Your task to perform on an android device: Go to ESPN.com Image 0: 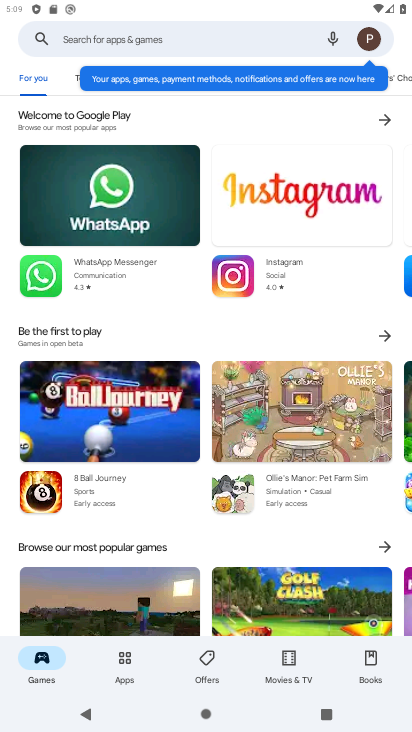
Step 0: press home button
Your task to perform on an android device: Go to ESPN.com Image 1: 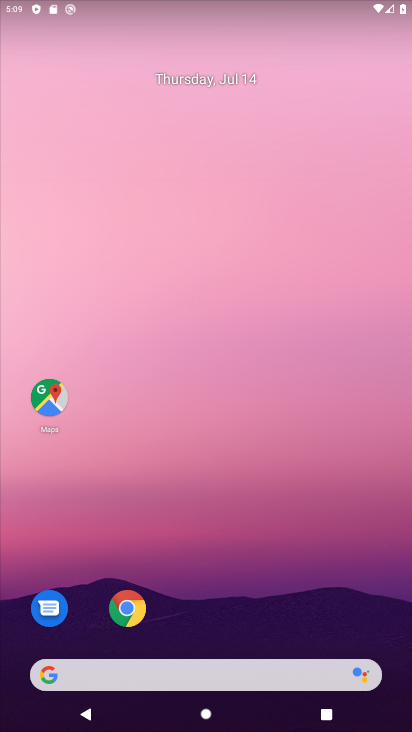
Step 1: click (129, 608)
Your task to perform on an android device: Go to ESPN.com Image 2: 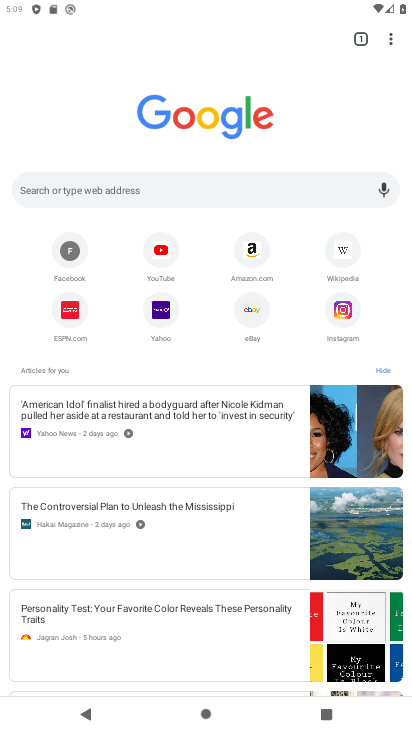
Step 2: click (70, 313)
Your task to perform on an android device: Go to ESPN.com Image 3: 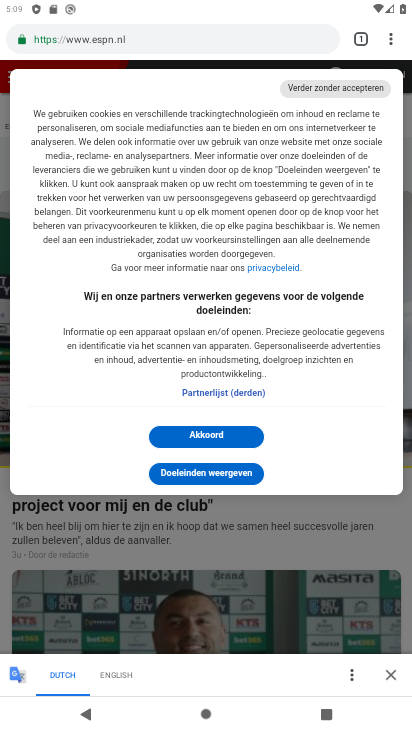
Step 3: click (70, 313)
Your task to perform on an android device: Go to ESPN.com Image 4: 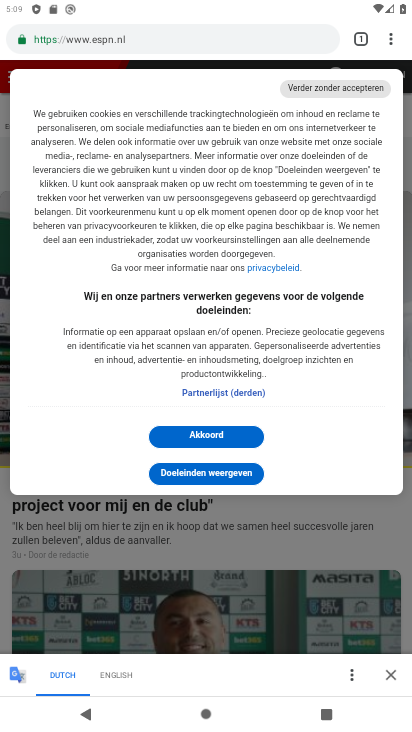
Step 4: click (205, 433)
Your task to perform on an android device: Go to ESPN.com Image 5: 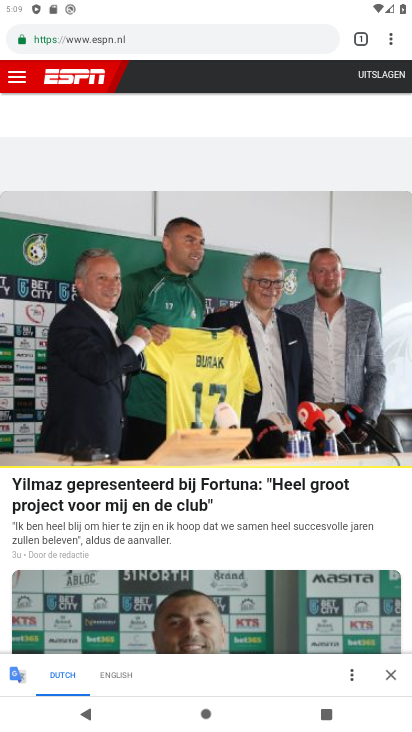
Step 5: task complete